Your task to perform on an android device: When is my next meeting? Image 0: 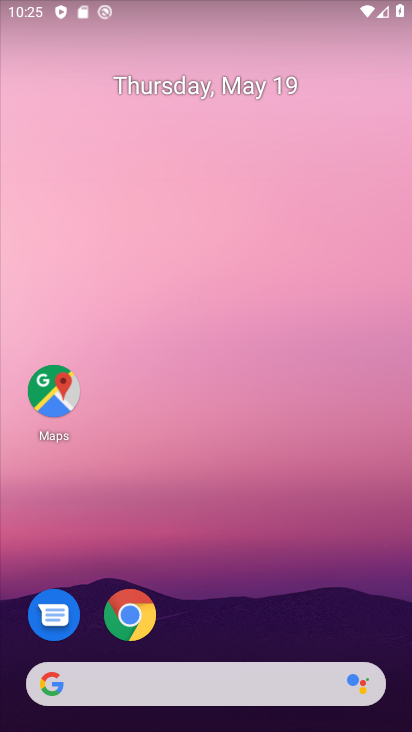
Step 0: drag from (252, 643) to (276, 16)
Your task to perform on an android device: When is my next meeting? Image 1: 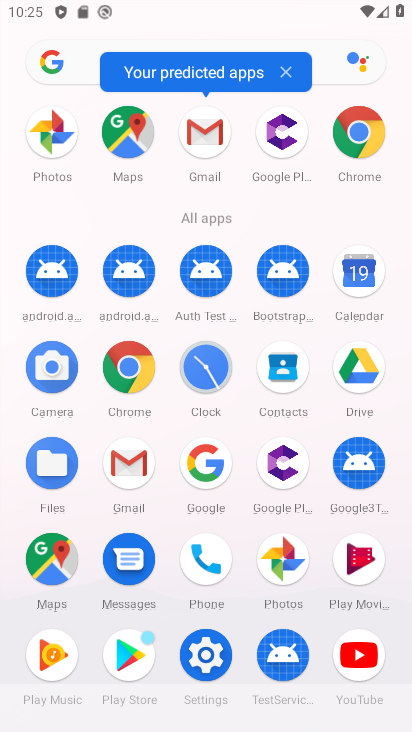
Step 1: click (355, 271)
Your task to perform on an android device: When is my next meeting? Image 2: 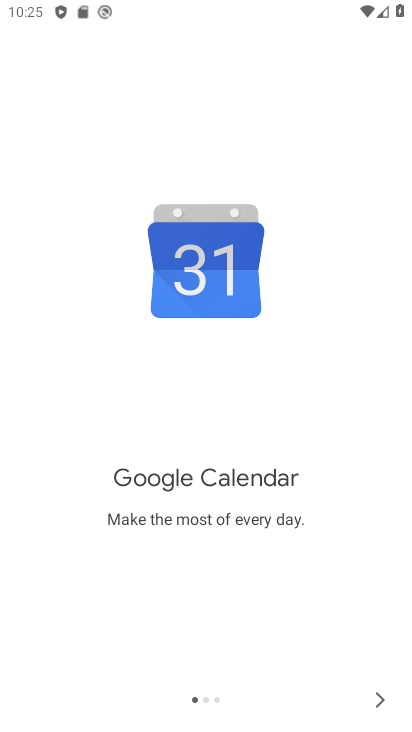
Step 2: click (384, 706)
Your task to perform on an android device: When is my next meeting? Image 3: 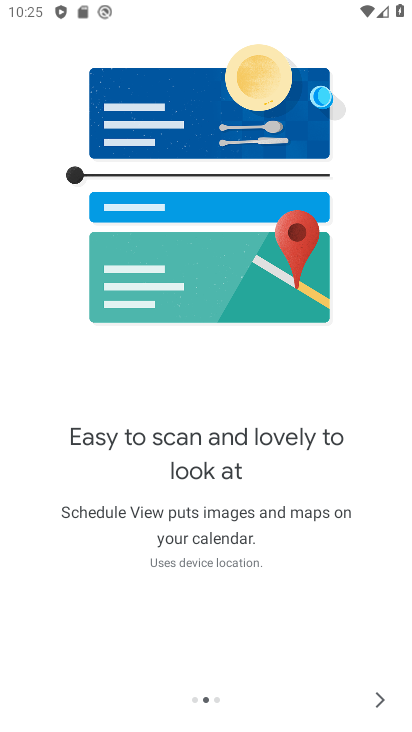
Step 3: click (384, 706)
Your task to perform on an android device: When is my next meeting? Image 4: 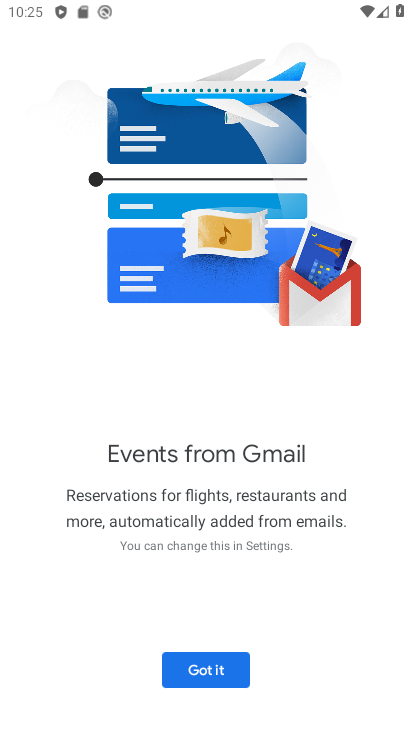
Step 4: click (239, 674)
Your task to perform on an android device: When is my next meeting? Image 5: 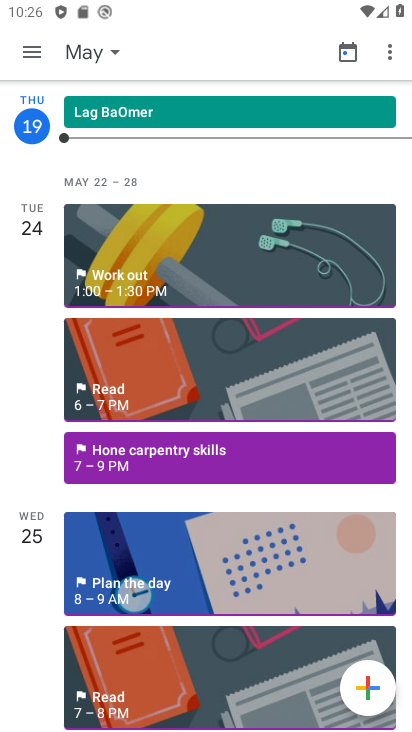
Step 5: click (133, 455)
Your task to perform on an android device: When is my next meeting? Image 6: 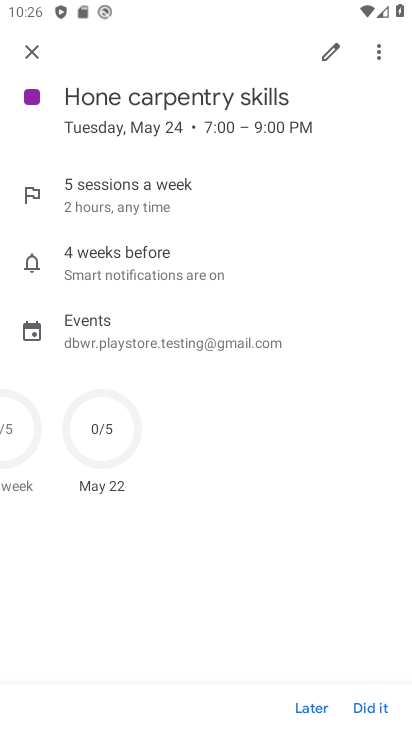
Step 6: task complete